Your task to perform on an android device: Open Chrome and go to settings Image 0: 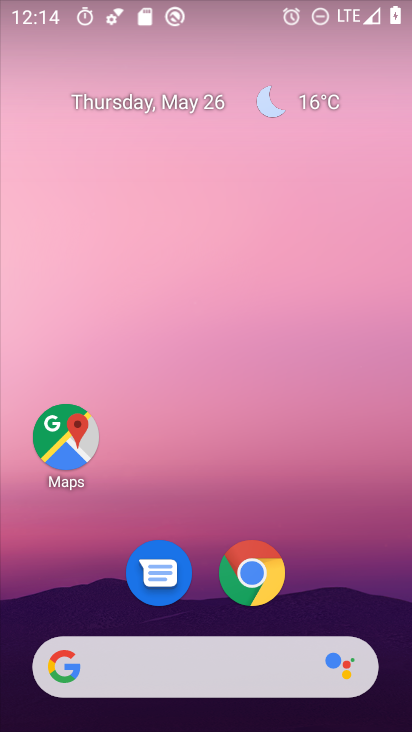
Step 0: click (254, 578)
Your task to perform on an android device: Open Chrome and go to settings Image 1: 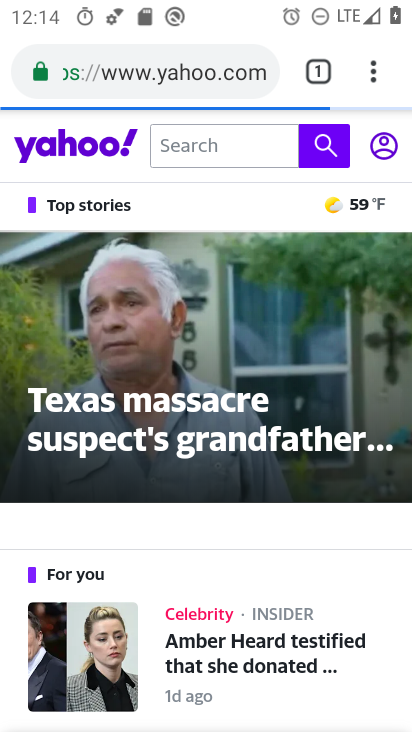
Step 1: click (373, 68)
Your task to perform on an android device: Open Chrome and go to settings Image 2: 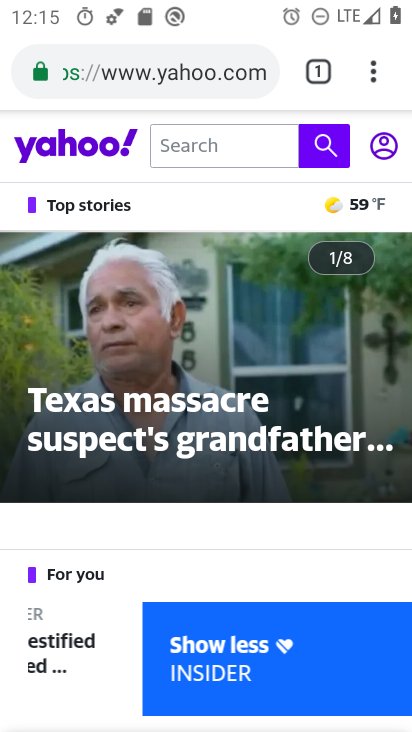
Step 2: click (372, 67)
Your task to perform on an android device: Open Chrome and go to settings Image 3: 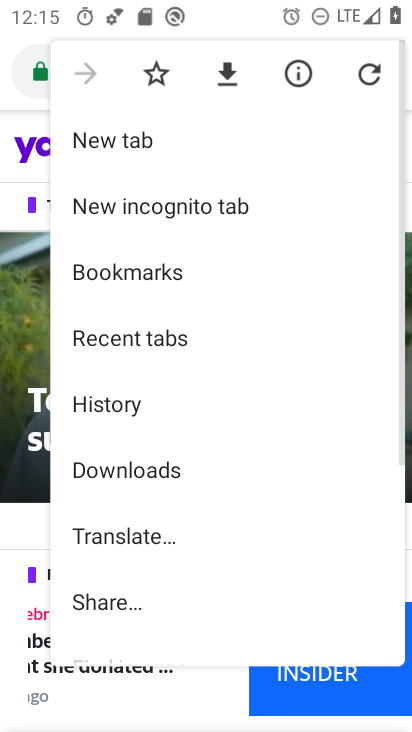
Step 3: drag from (191, 528) to (224, 157)
Your task to perform on an android device: Open Chrome and go to settings Image 4: 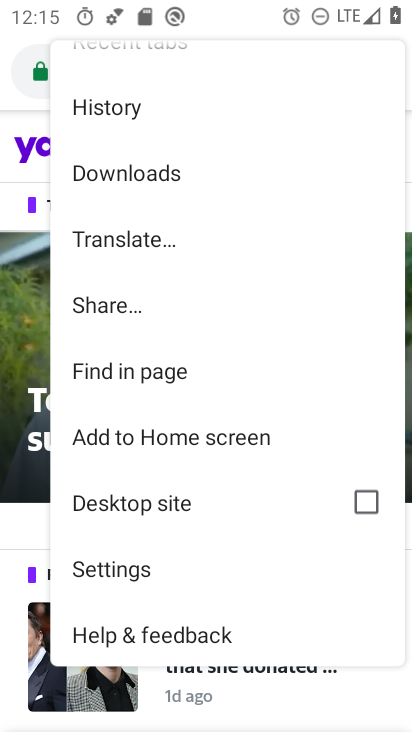
Step 4: click (107, 571)
Your task to perform on an android device: Open Chrome and go to settings Image 5: 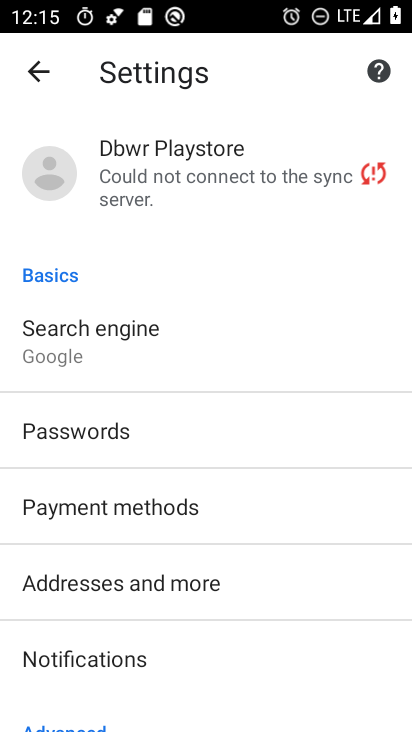
Step 5: task complete